Your task to perform on an android device: What's on my calendar today? Image 0: 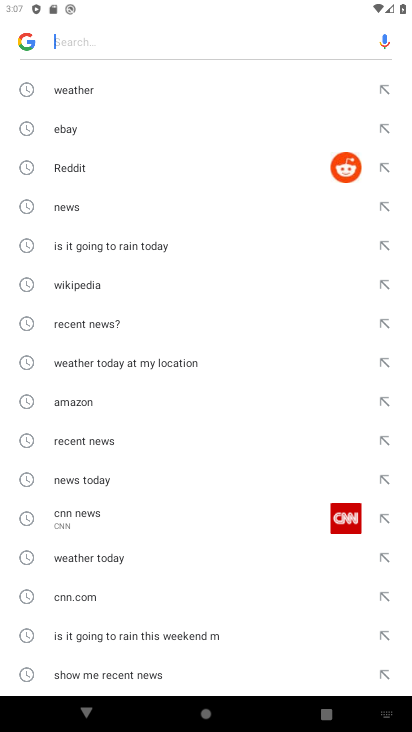
Step 0: press home button
Your task to perform on an android device: What's on my calendar today? Image 1: 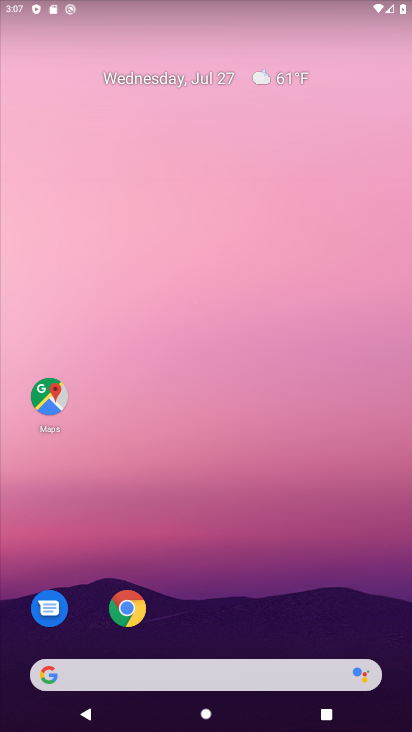
Step 1: drag from (265, 584) to (236, 58)
Your task to perform on an android device: What's on my calendar today? Image 2: 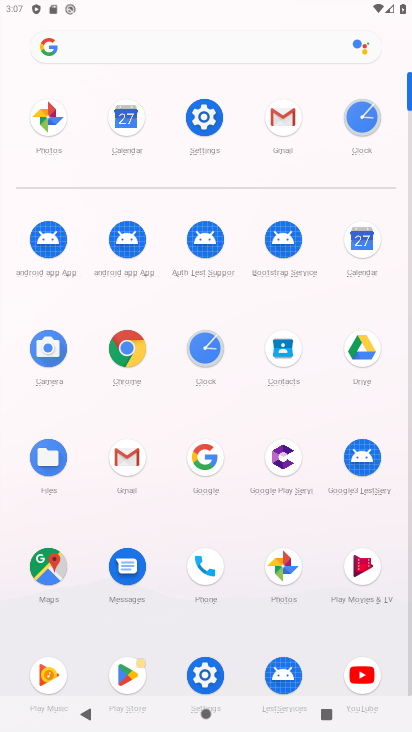
Step 2: click (370, 251)
Your task to perform on an android device: What's on my calendar today? Image 3: 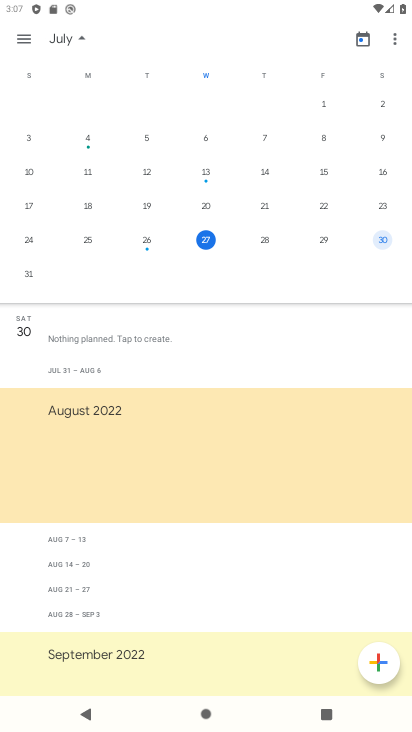
Step 3: click (210, 244)
Your task to perform on an android device: What's on my calendar today? Image 4: 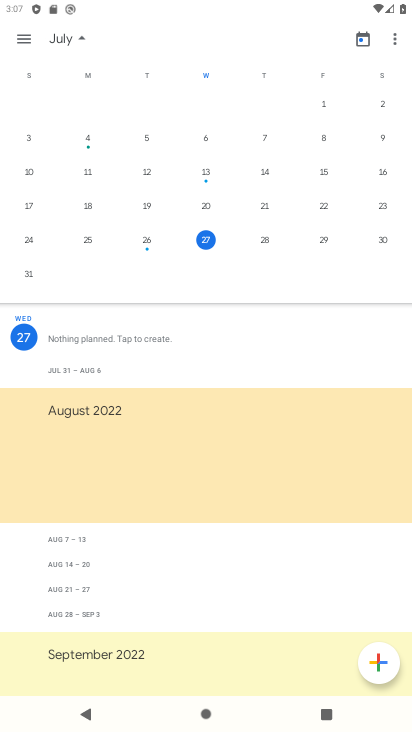
Step 4: task complete